Your task to perform on an android device: install app "Google Play services" Image 0: 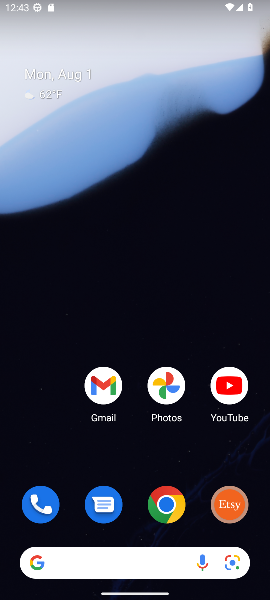
Step 0: drag from (109, 553) to (134, 305)
Your task to perform on an android device: install app "Google Play services" Image 1: 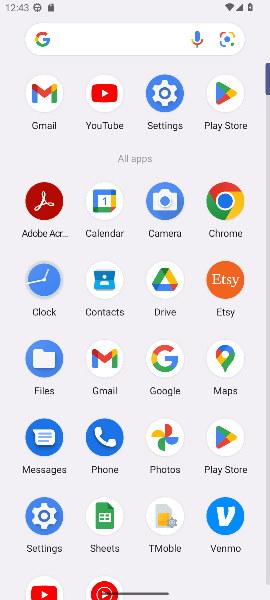
Step 1: click (223, 84)
Your task to perform on an android device: install app "Google Play services" Image 2: 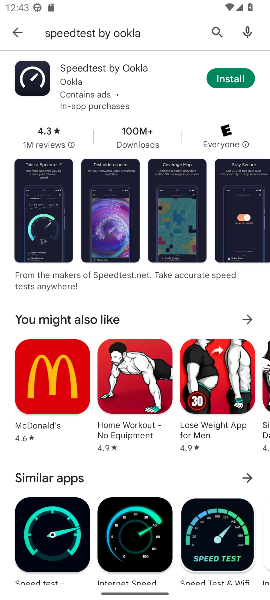
Step 2: click (211, 29)
Your task to perform on an android device: install app "Google Play services" Image 3: 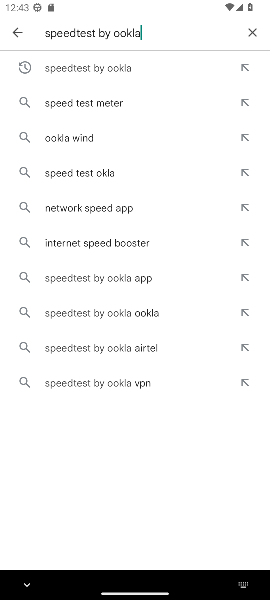
Step 3: click (251, 27)
Your task to perform on an android device: install app "Google Play services" Image 4: 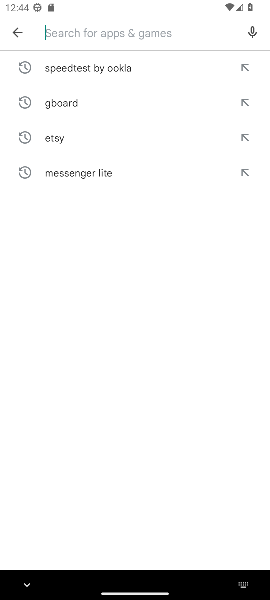
Step 4: type "google play services"
Your task to perform on an android device: install app "Google Play services" Image 5: 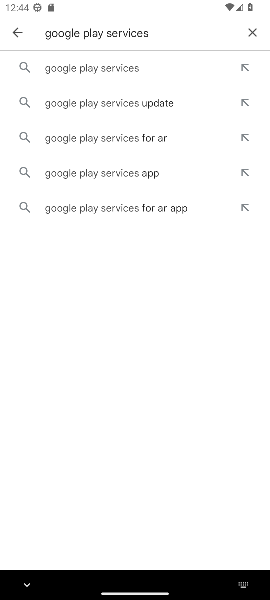
Step 5: click (111, 74)
Your task to perform on an android device: install app "Google Play services" Image 6: 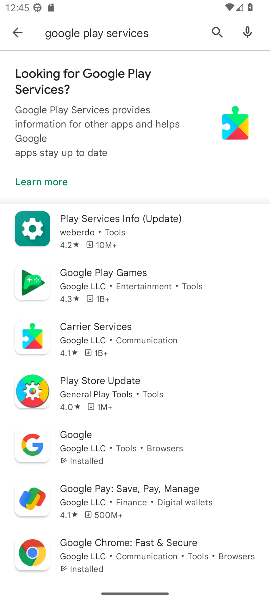
Step 6: task complete